Your task to perform on an android device: Add dell xps to the cart on target Image 0: 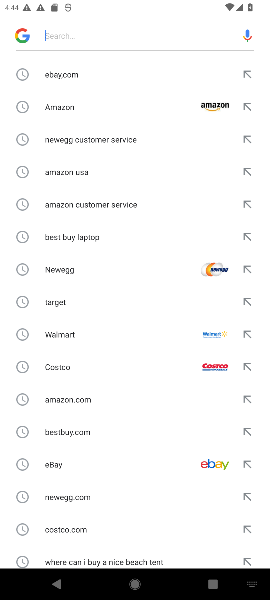
Step 0: click (121, 29)
Your task to perform on an android device: Add dell xps to the cart on target Image 1: 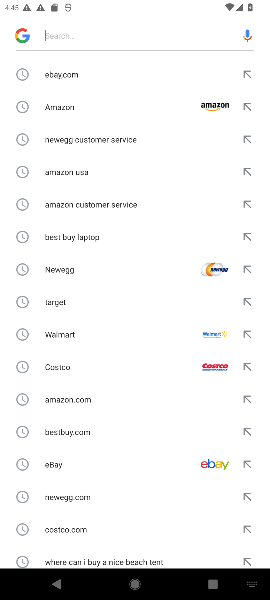
Step 1: type "target "
Your task to perform on an android device: Add dell xps to the cart on target Image 2: 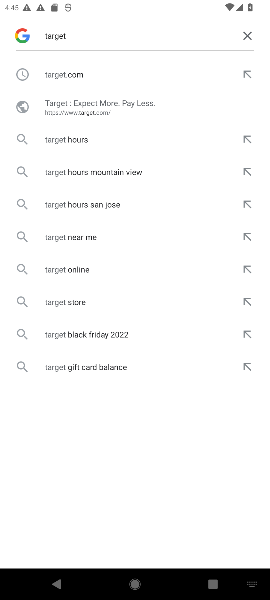
Step 2: click (85, 67)
Your task to perform on an android device: Add dell xps to the cart on target Image 3: 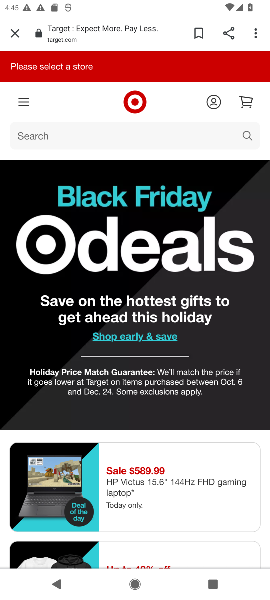
Step 3: click (154, 131)
Your task to perform on an android device: Add dell xps to the cart on target Image 4: 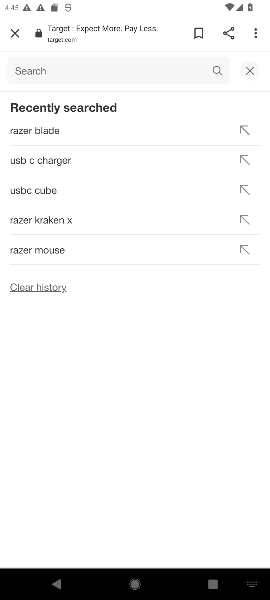
Step 4: type " dell xps  "
Your task to perform on an android device: Add dell xps to the cart on target Image 5: 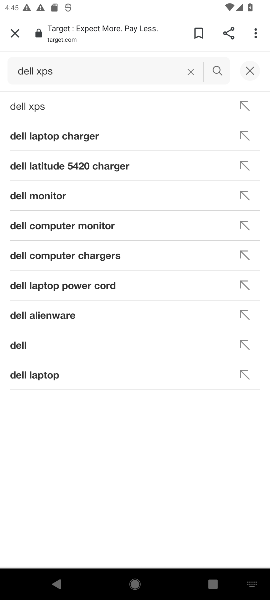
Step 5: click (44, 107)
Your task to perform on an android device: Add dell xps to the cart on target Image 6: 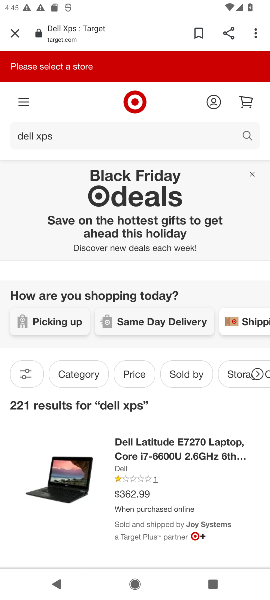
Step 6: drag from (165, 470) to (176, 256)
Your task to perform on an android device: Add dell xps to the cart on target Image 7: 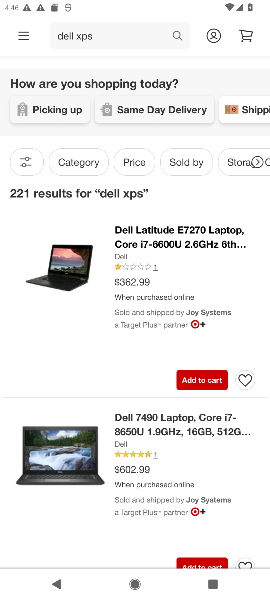
Step 7: click (193, 374)
Your task to perform on an android device: Add dell xps to the cart on target Image 8: 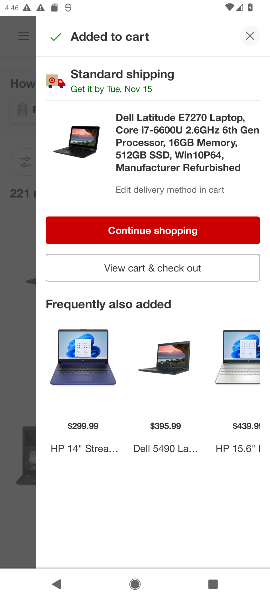
Step 8: click (257, 26)
Your task to perform on an android device: Add dell xps to the cart on target Image 9: 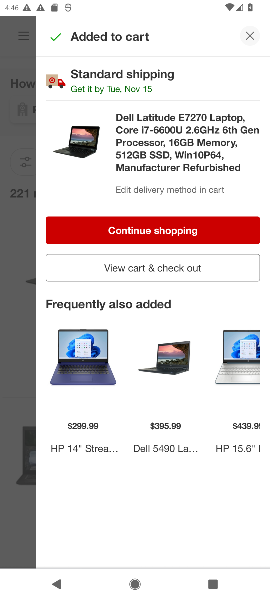
Step 9: task complete